Your task to perform on an android device: change timer sound Image 0: 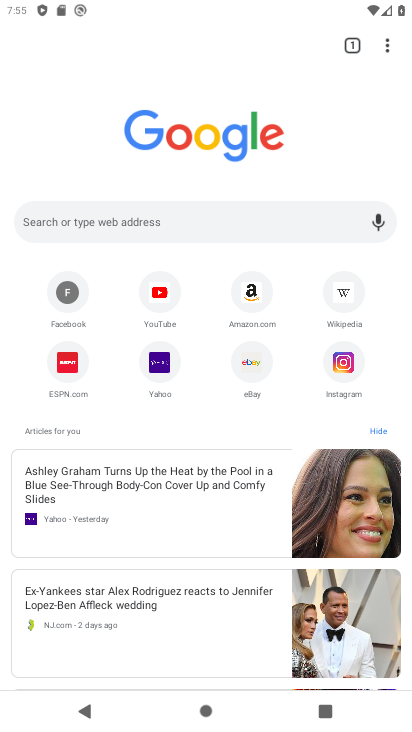
Step 0: press home button
Your task to perform on an android device: change timer sound Image 1: 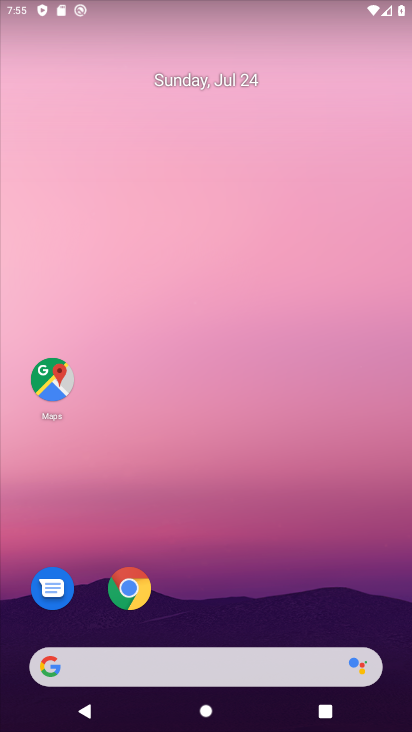
Step 1: drag from (278, 617) to (348, 69)
Your task to perform on an android device: change timer sound Image 2: 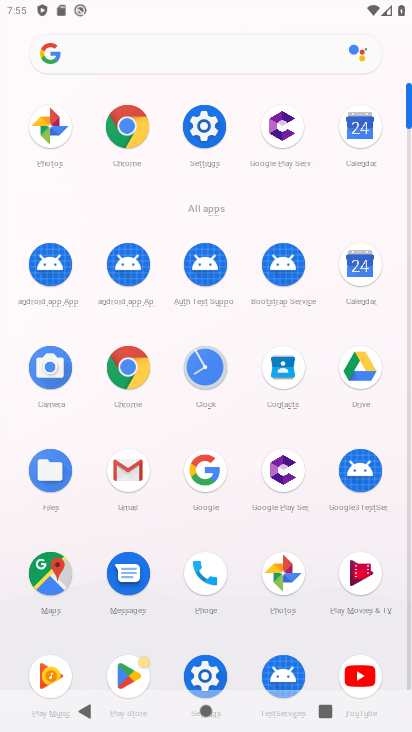
Step 2: click (202, 133)
Your task to perform on an android device: change timer sound Image 3: 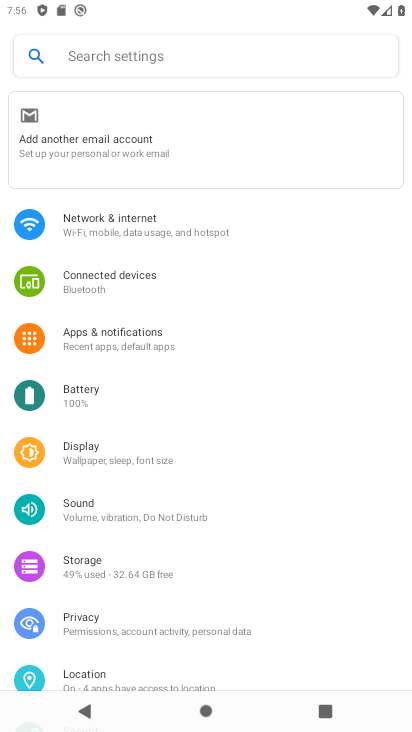
Step 3: click (98, 504)
Your task to perform on an android device: change timer sound Image 4: 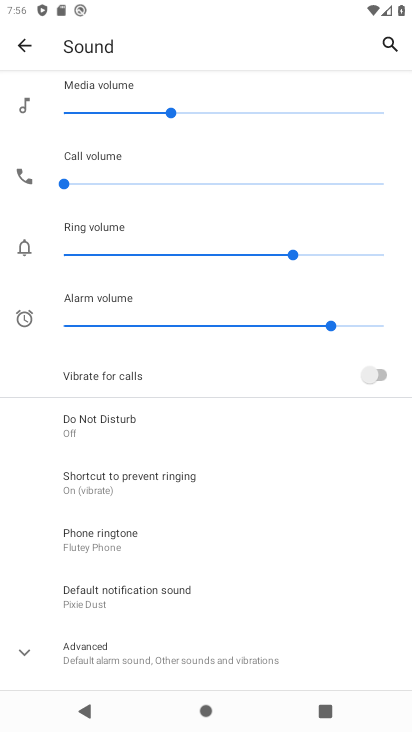
Step 4: task complete